Your task to perform on an android device: Open Maps and search for coffee Image 0: 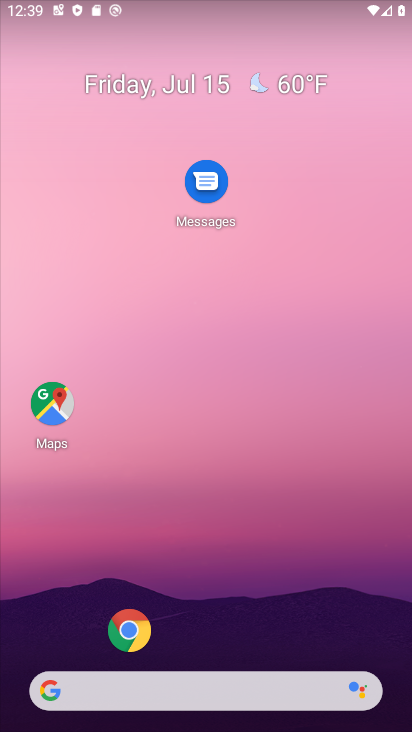
Step 0: click (47, 401)
Your task to perform on an android device: Open Maps and search for coffee Image 1: 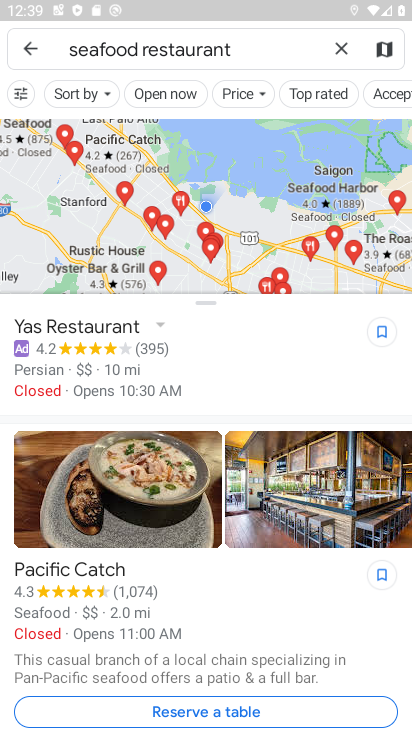
Step 1: click (337, 43)
Your task to perform on an android device: Open Maps and search for coffee Image 2: 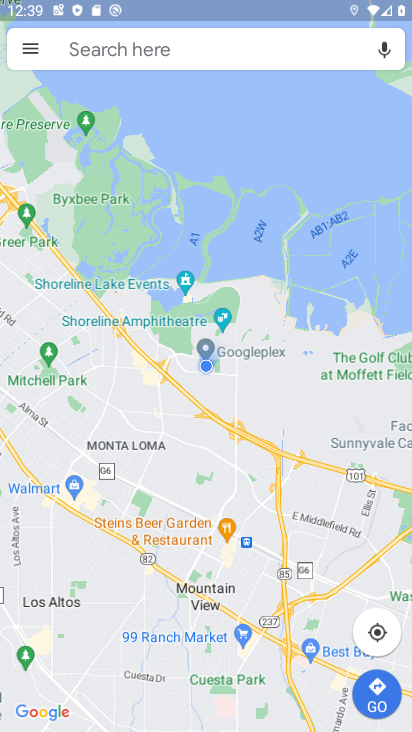
Step 2: click (74, 55)
Your task to perform on an android device: Open Maps and search for coffee Image 3: 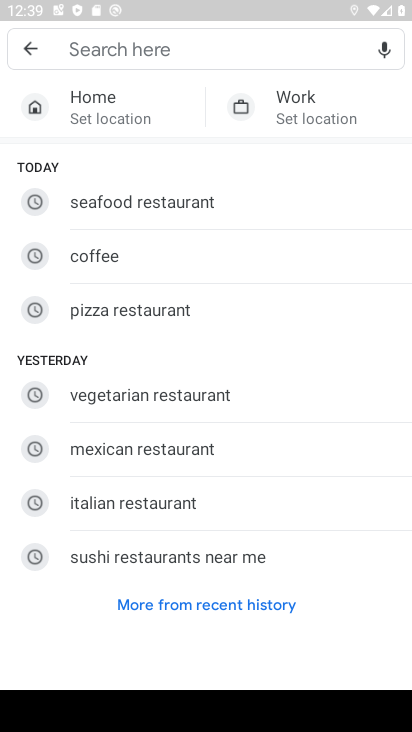
Step 3: click (122, 255)
Your task to perform on an android device: Open Maps and search for coffee Image 4: 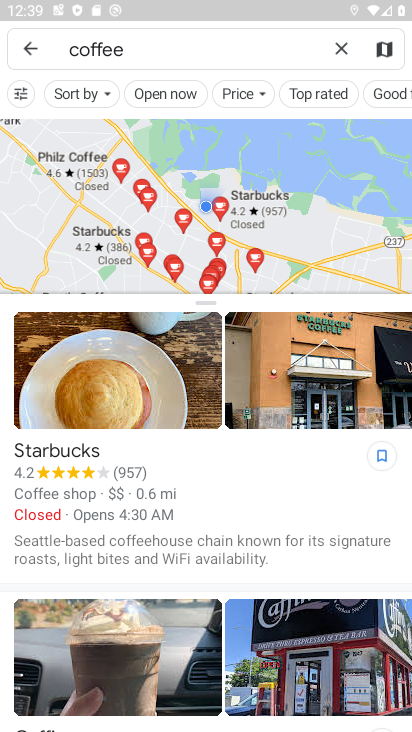
Step 4: task complete